Your task to perform on an android device: Go to sound settings Image 0: 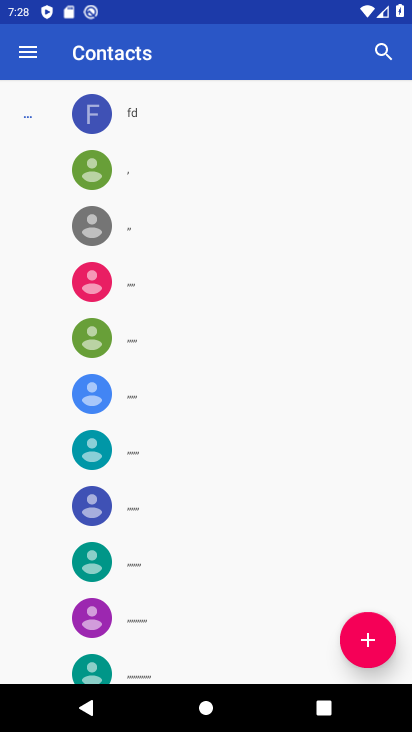
Step 0: press back button
Your task to perform on an android device: Go to sound settings Image 1: 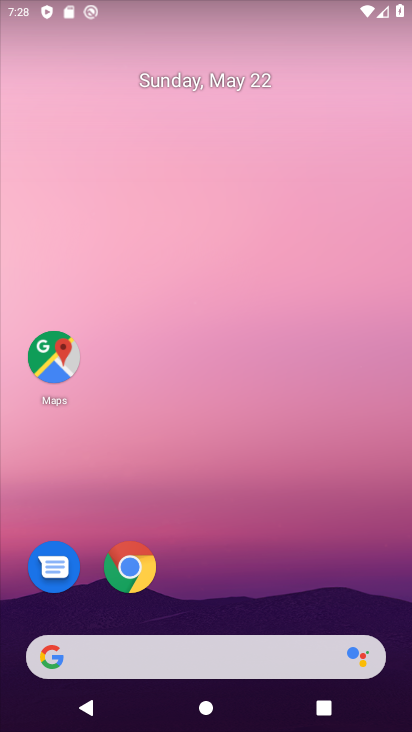
Step 1: drag from (215, 604) to (258, 35)
Your task to perform on an android device: Go to sound settings Image 2: 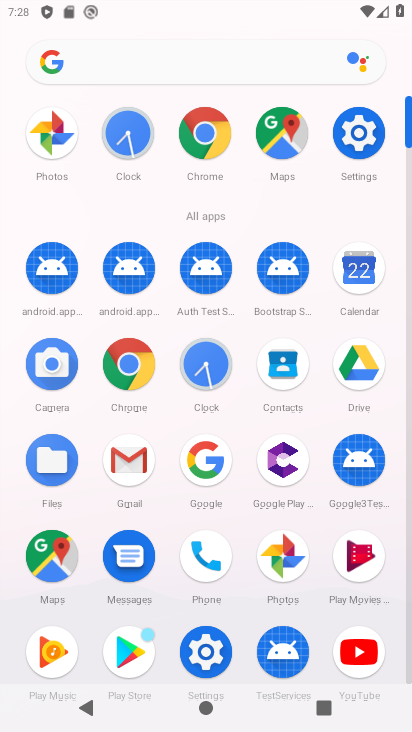
Step 2: click (340, 140)
Your task to perform on an android device: Go to sound settings Image 3: 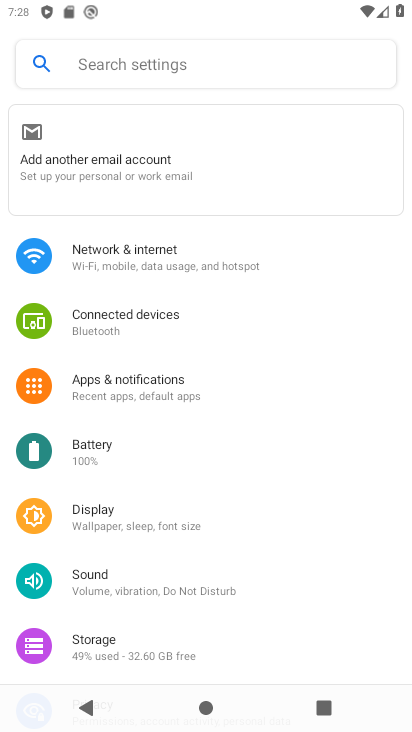
Step 3: click (101, 580)
Your task to perform on an android device: Go to sound settings Image 4: 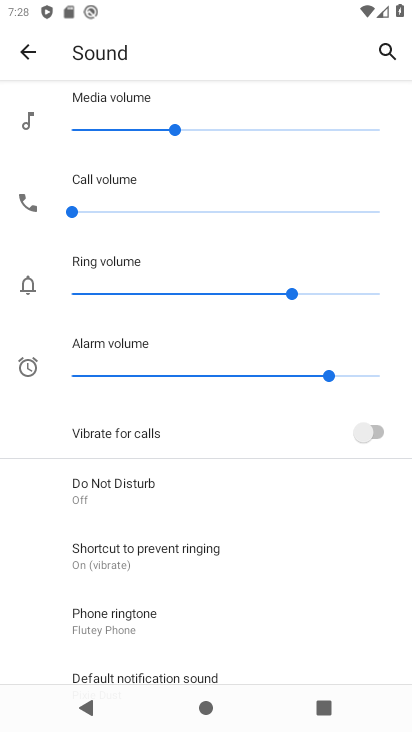
Step 4: task complete